Your task to perform on an android device: open sync settings in chrome Image 0: 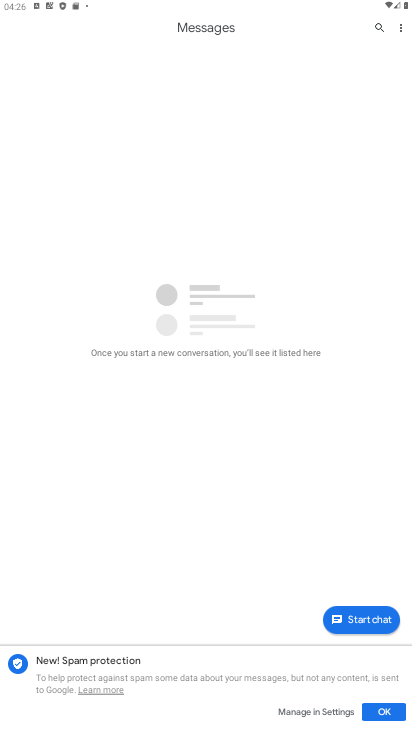
Step 0: press home button
Your task to perform on an android device: open sync settings in chrome Image 1: 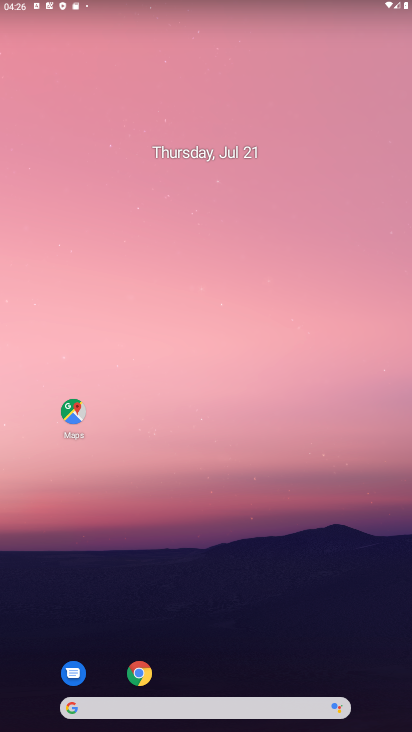
Step 1: click (141, 675)
Your task to perform on an android device: open sync settings in chrome Image 2: 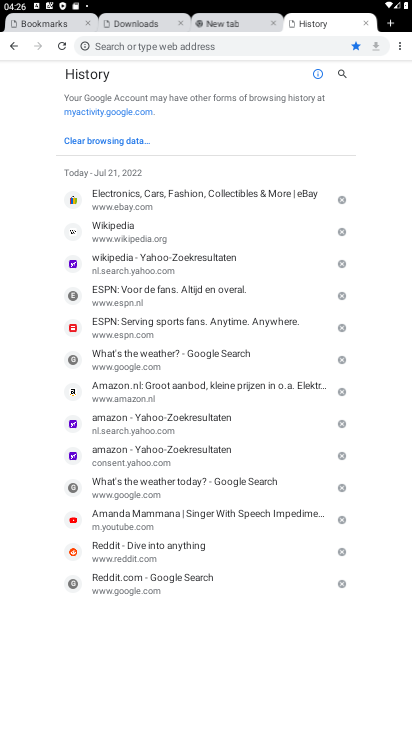
Step 2: click (398, 49)
Your task to perform on an android device: open sync settings in chrome Image 3: 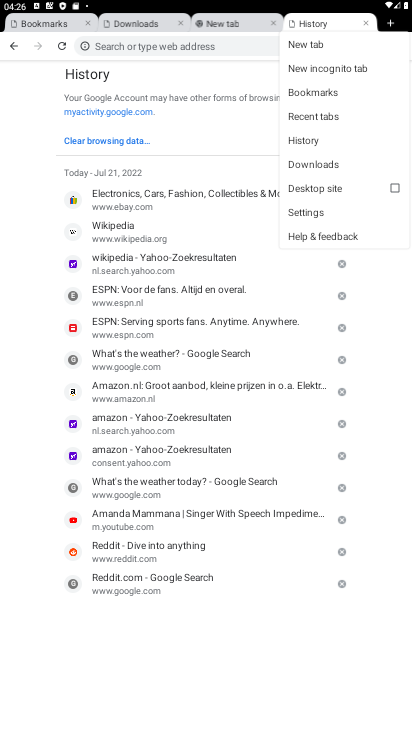
Step 3: click (300, 209)
Your task to perform on an android device: open sync settings in chrome Image 4: 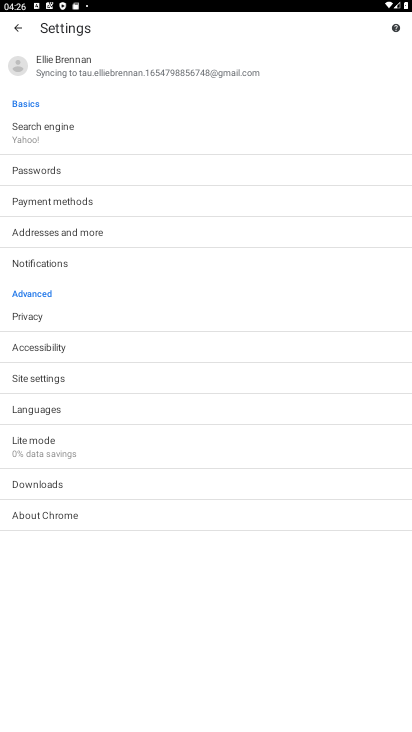
Step 4: click (56, 61)
Your task to perform on an android device: open sync settings in chrome Image 5: 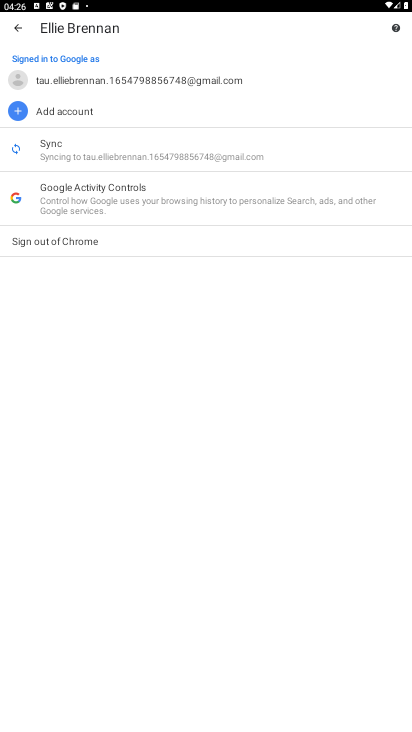
Step 5: click (73, 148)
Your task to perform on an android device: open sync settings in chrome Image 6: 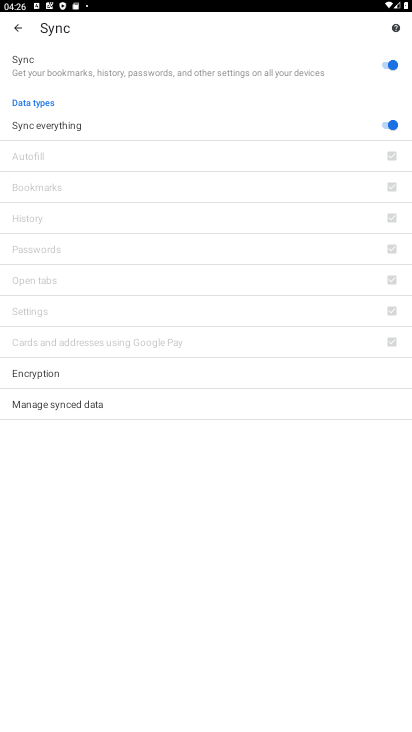
Step 6: task complete